Your task to perform on an android device: open chrome and create a bookmark for the current page Image 0: 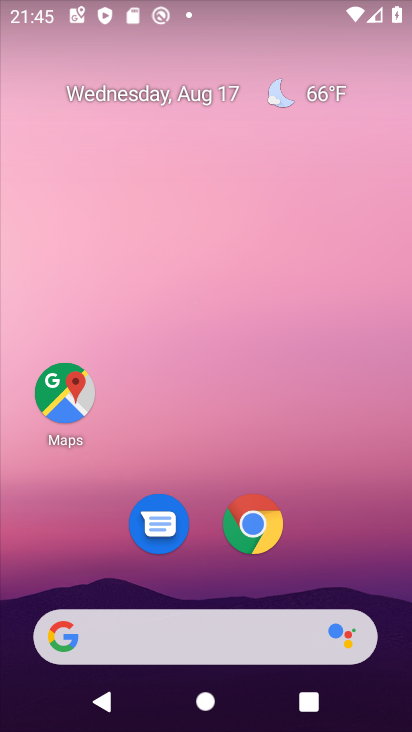
Step 0: click (261, 518)
Your task to perform on an android device: open chrome and create a bookmark for the current page Image 1: 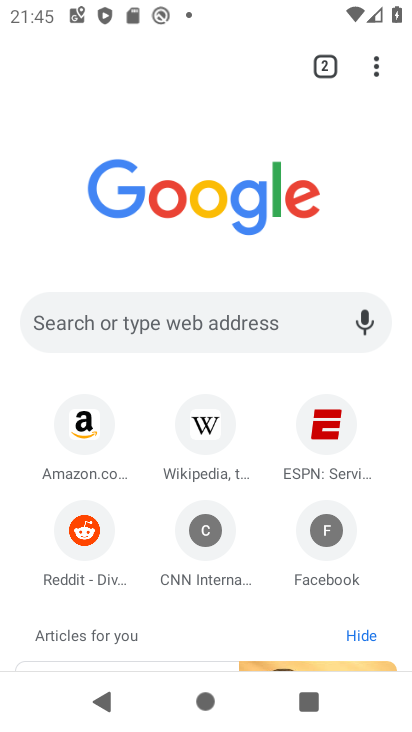
Step 1: click (379, 64)
Your task to perform on an android device: open chrome and create a bookmark for the current page Image 2: 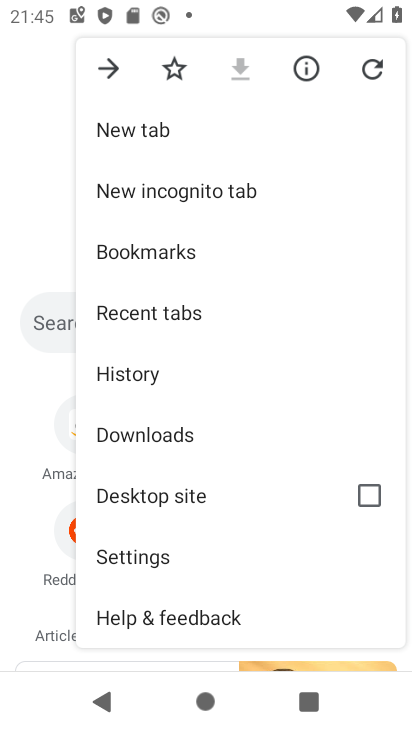
Step 2: click (171, 59)
Your task to perform on an android device: open chrome and create a bookmark for the current page Image 3: 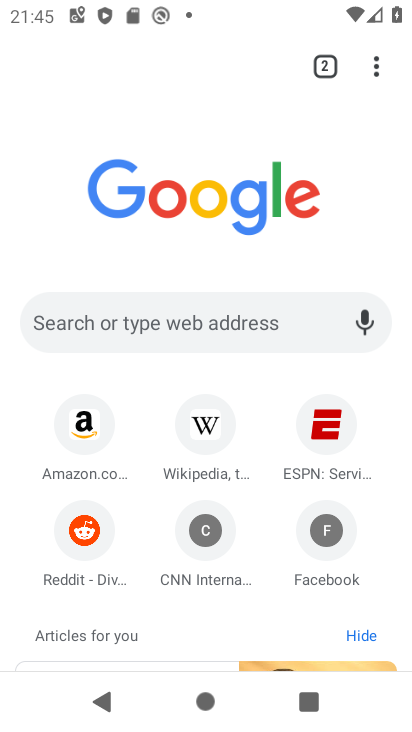
Step 3: task complete